Your task to perform on an android device: Go to location settings Image 0: 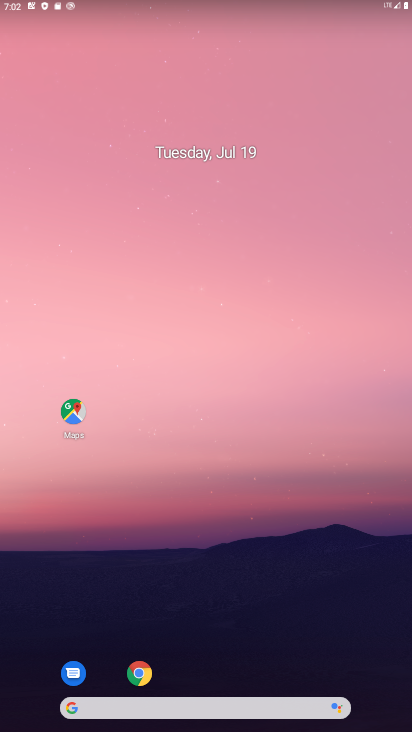
Step 0: drag from (362, 662) to (156, 1)
Your task to perform on an android device: Go to location settings Image 1: 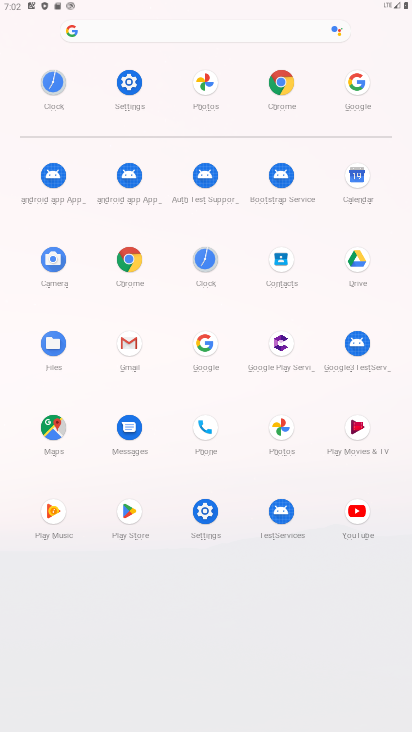
Step 1: click (212, 533)
Your task to perform on an android device: Go to location settings Image 2: 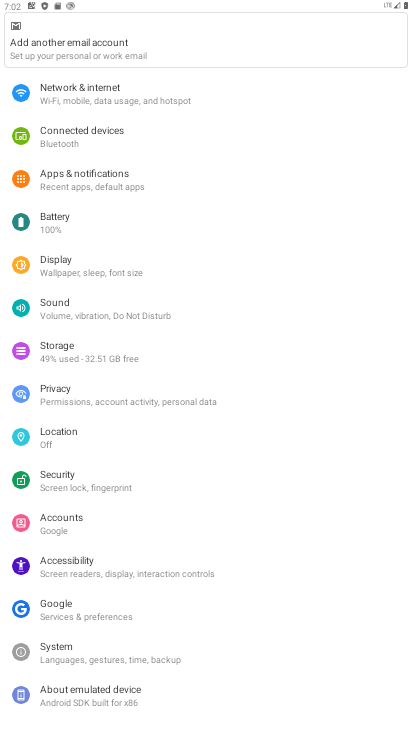
Step 2: click (55, 449)
Your task to perform on an android device: Go to location settings Image 3: 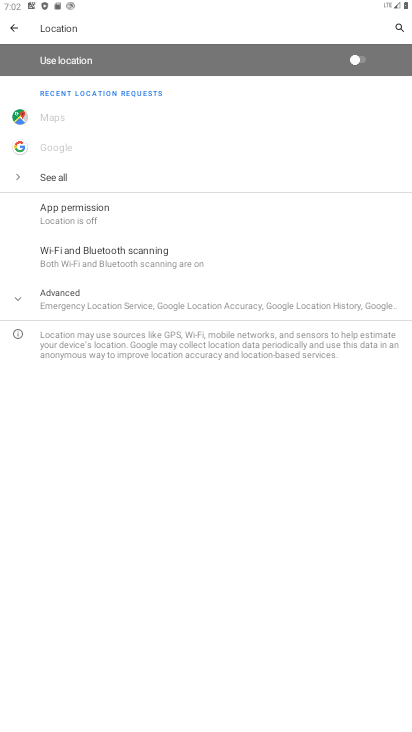
Step 3: task complete